Your task to perform on an android device: turn on javascript in the chrome app Image 0: 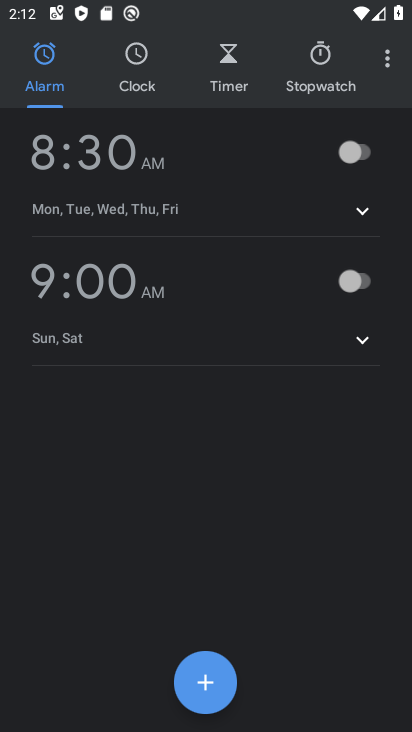
Step 0: press home button
Your task to perform on an android device: turn on javascript in the chrome app Image 1: 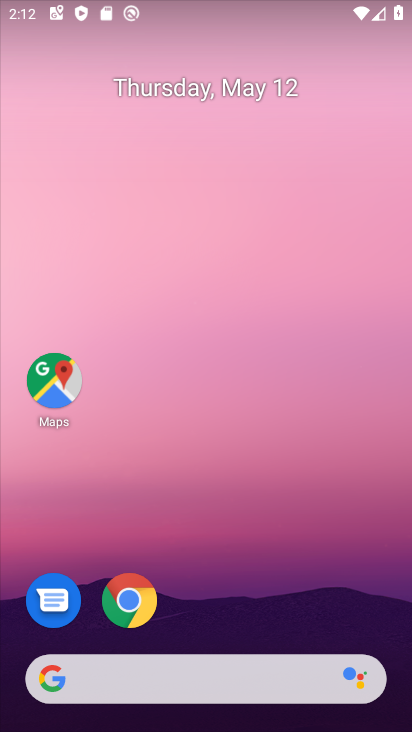
Step 1: drag from (292, 611) to (357, 122)
Your task to perform on an android device: turn on javascript in the chrome app Image 2: 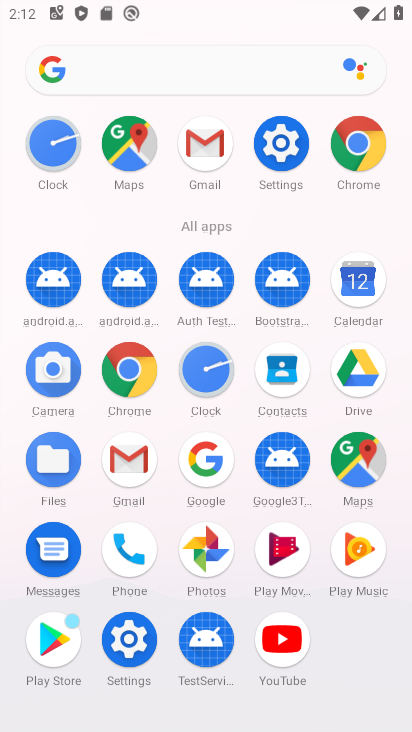
Step 2: click (122, 395)
Your task to perform on an android device: turn on javascript in the chrome app Image 3: 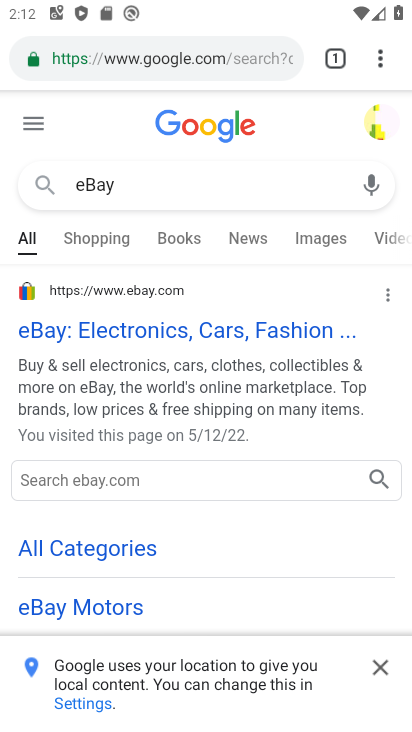
Step 3: click (384, 665)
Your task to perform on an android device: turn on javascript in the chrome app Image 4: 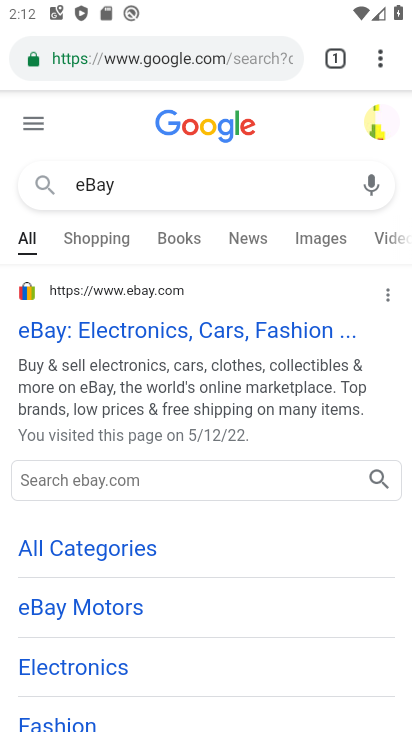
Step 4: click (378, 56)
Your task to perform on an android device: turn on javascript in the chrome app Image 5: 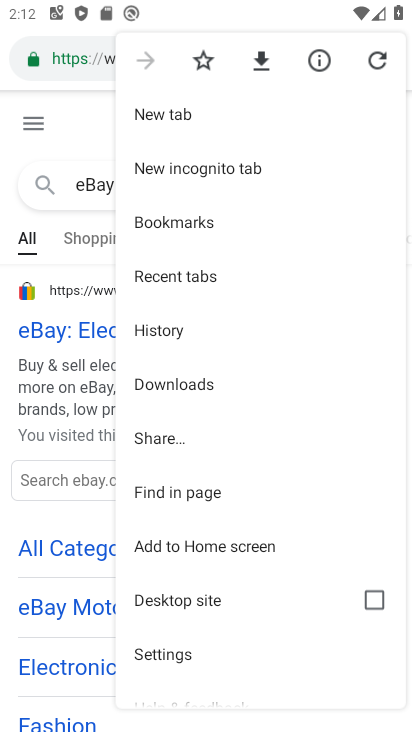
Step 5: drag from (190, 632) to (202, 387)
Your task to perform on an android device: turn on javascript in the chrome app Image 6: 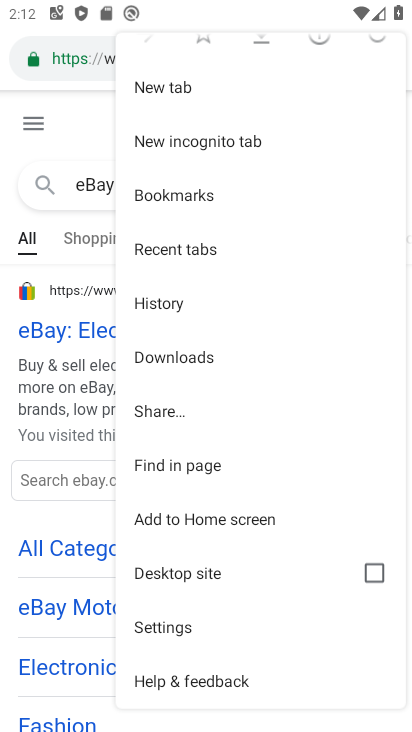
Step 6: click (196, 629)
Your task to perform on an android device: turn on javascript in the chrome app Image 7: 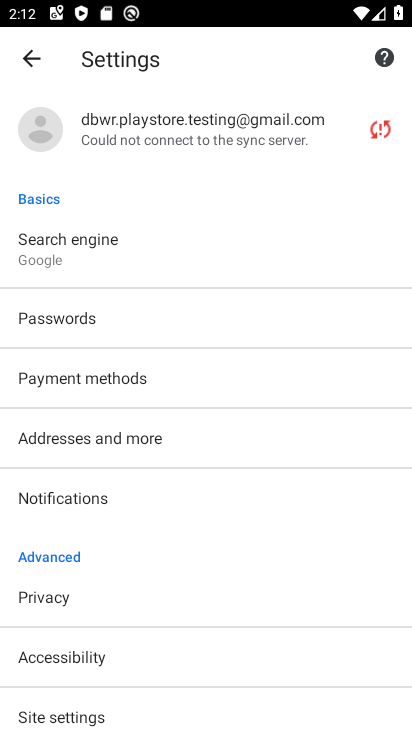
Step 7: drag from (95, 589) to (109, 334)
Your task to perform on an android device: turn on javascript in the chrome app Image 8: 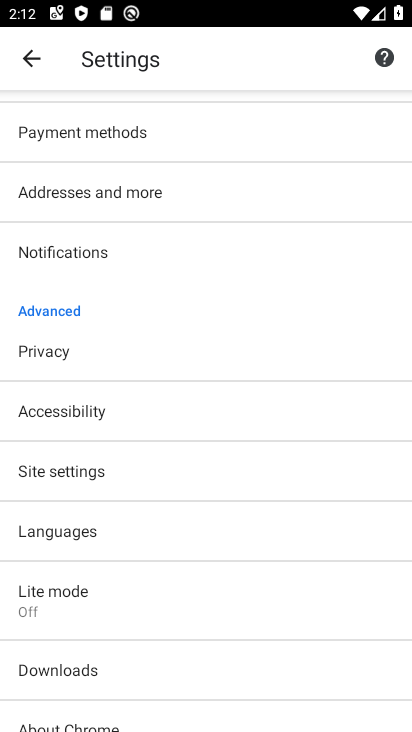
Step 8: click (107, 469)
Your task to perform on an android device: turn on javascript in the chrome app Image 9: 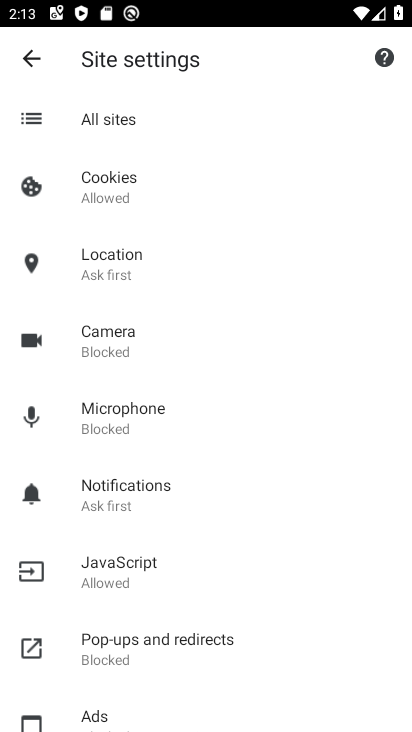
Step 9: click (131, 571)
Your task to perform on an android device: turn on javascript in the chrome app Image 10: 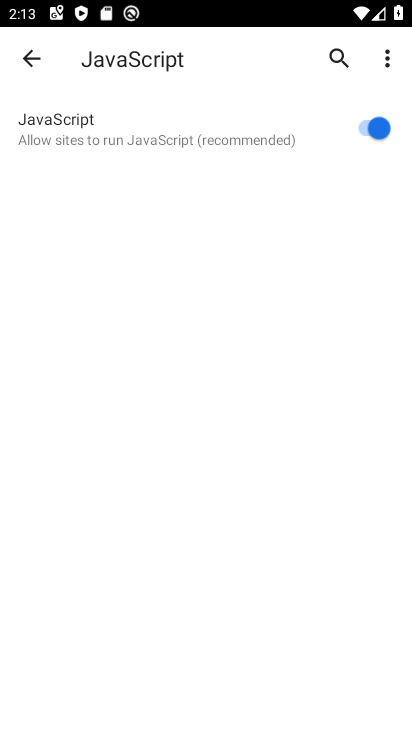
Step 10: task complete